Your task to perform on an android device: manage bookmarks in the chrome app Image 0: 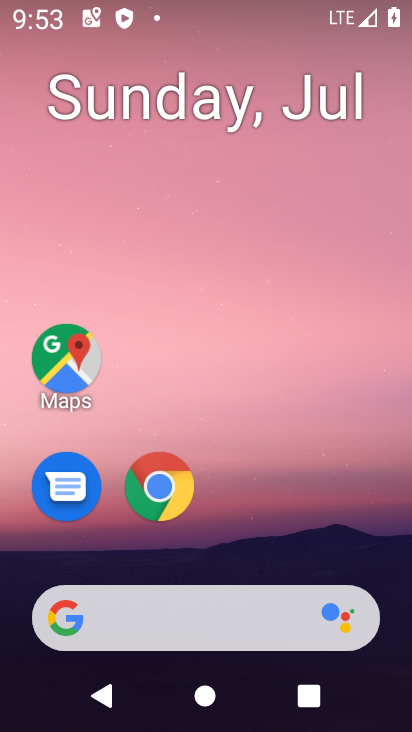
Step 0: press home button
Your task to perform on an android device: manage bookmarks in the chrome app Image 1: 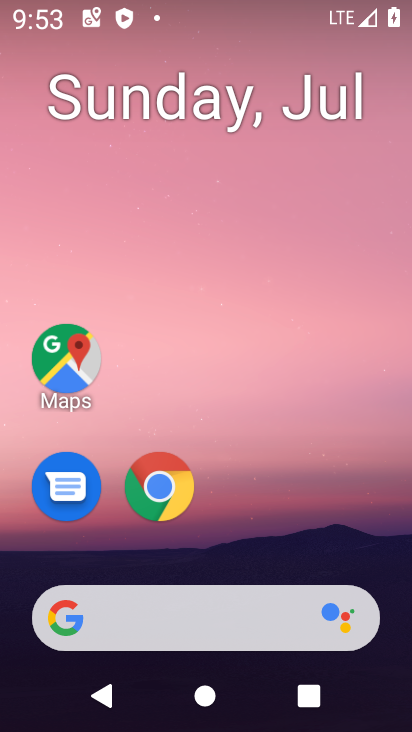
Step 1: drag from (364, 543) to (348, 158)
Your task to perform on an android device: manage bookmarks in the chrome app Image 2: 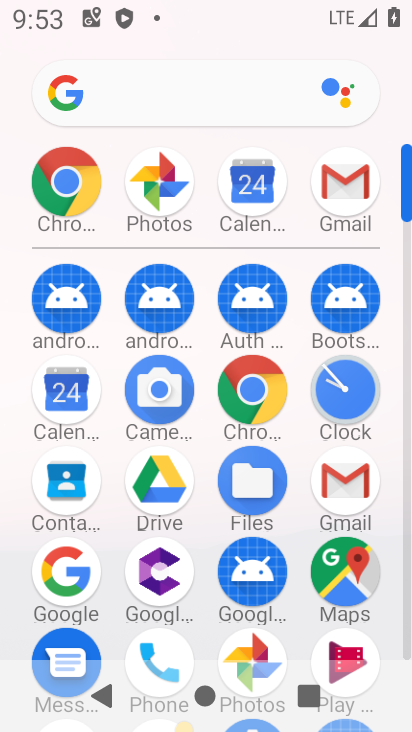
Step 2: click (259, 382)
Your task to perform on an android device: manage bookmarks in the chrome app Image 3: 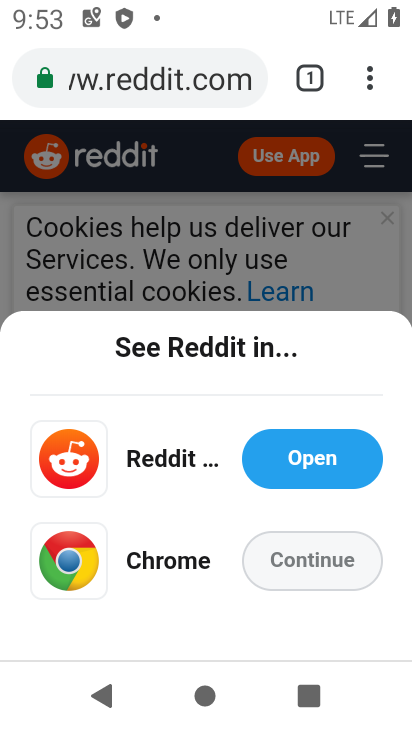
Step 3: click (369, 77)
Your task to perform on an android device: manage bookmarks in the chrome app Image 4: 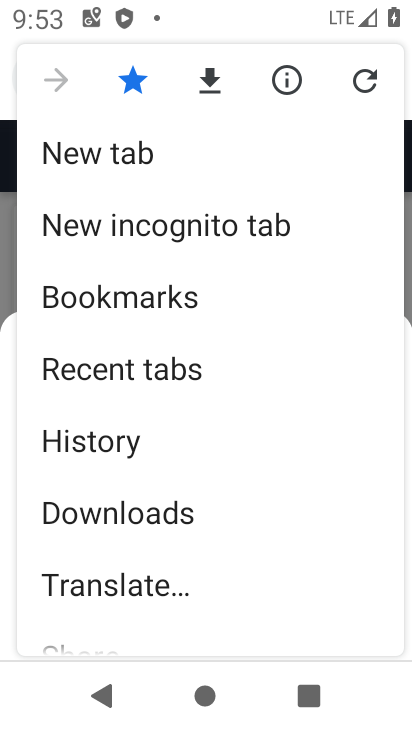
Step 4: click (218, 299)
Your task to perform on an android device: manage bookmarks in the chrome app Image 5: 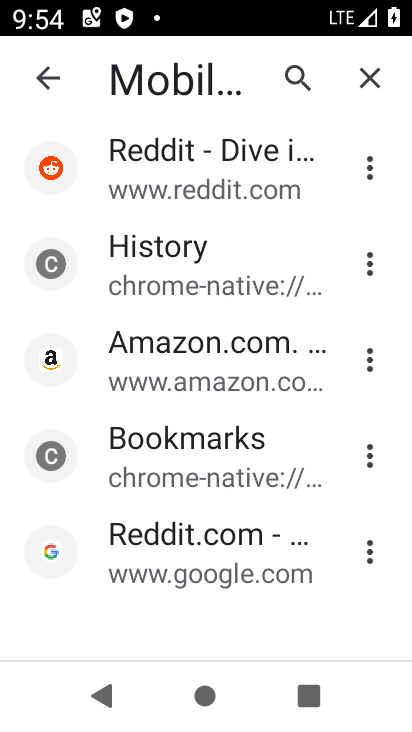
Step 5: click (376, 163)
Your task to perform on an android device: manage bookmarks in the chrome app Image 6: 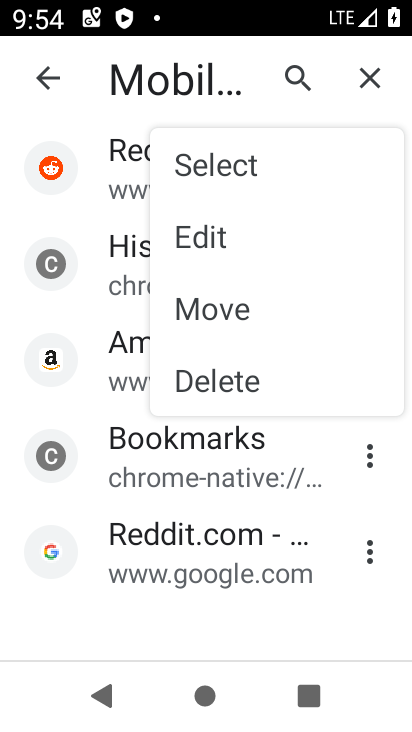
Step 6: click (244, 251)
Your task to perform on an android device: manage bookmarks in the chrome app Image 7: 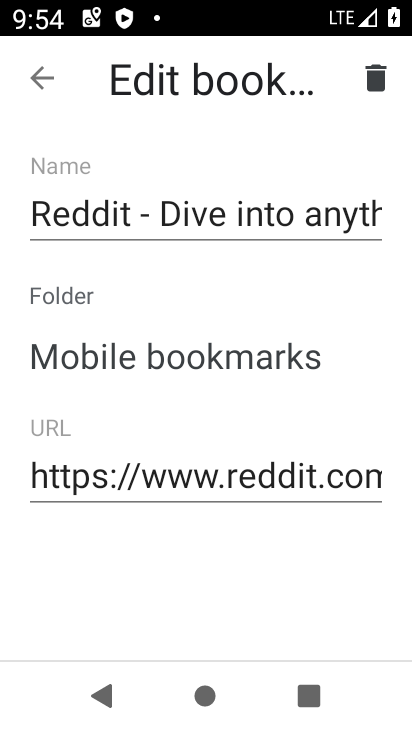
Step 7: click (294, 212)
Your task to perform on an android device: manage bookmarks in the chrome app Image 8: 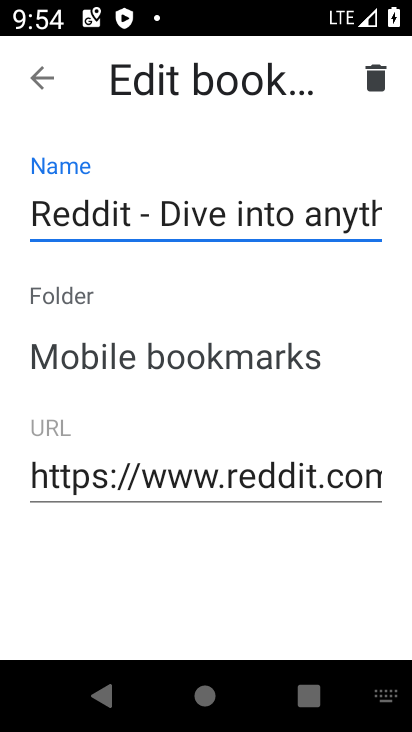
Step 8: type "o"
Your task to perform on an android device: manage bookmarks in the chrome app Image 9: 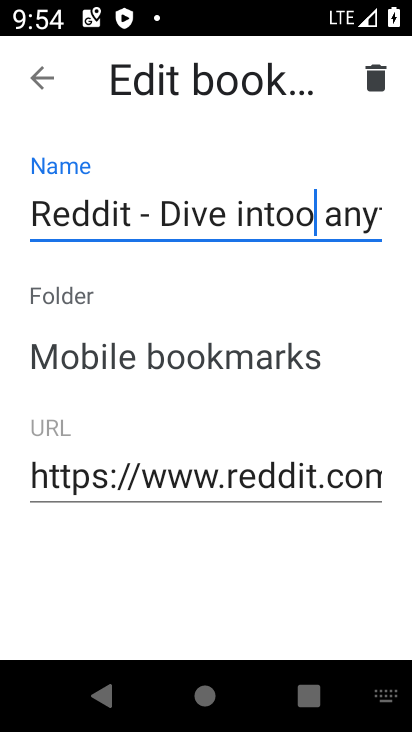
Step 9: click (41, 86)
Your task to perform on an android device: manage bookmarks in the chrome app Image 10: 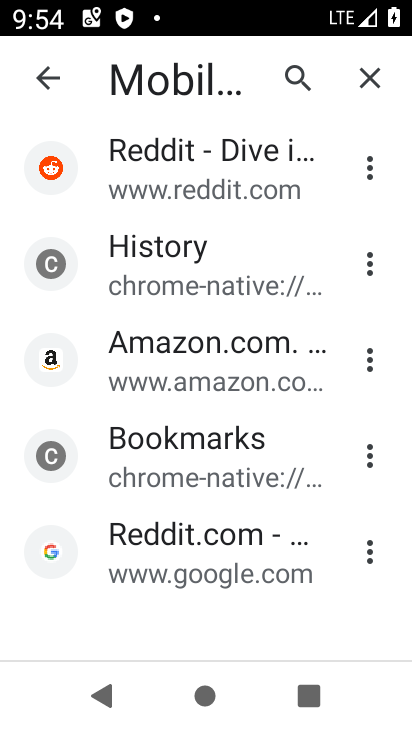
Step 10: task complete